Your task to perform on an android device: delete location history Image 0: 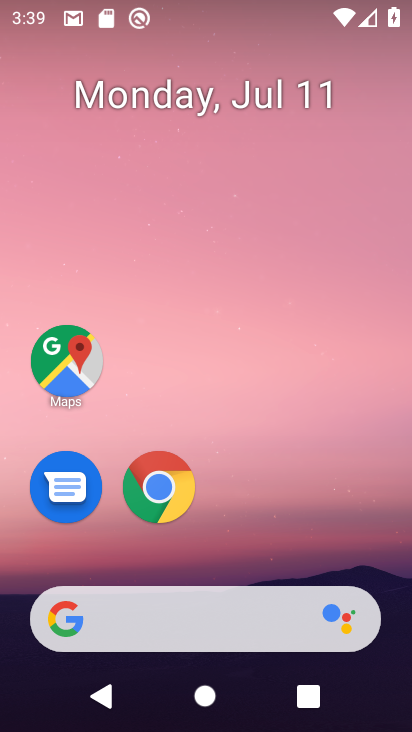
Step 0: click (58, 374)
Your task to perform on an android device: delete location history Image 1: 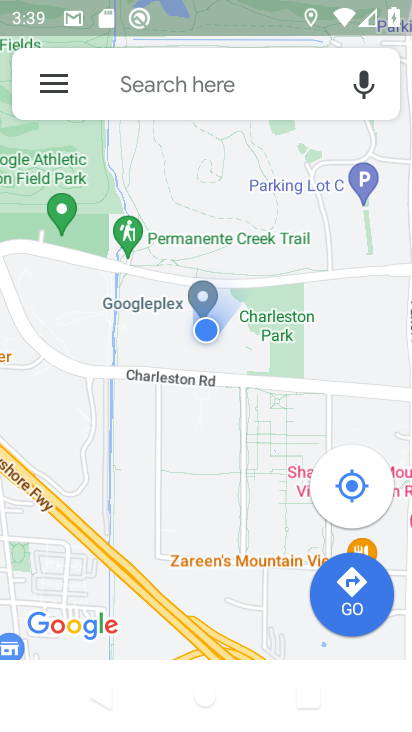
Step 1: click (49, 84)
Your task to perform on an android device: delete location history Image 2: 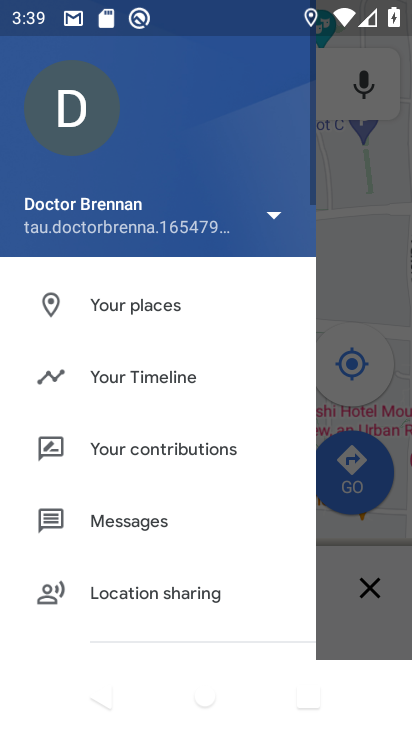
Step 2: click (154, 376)
Your task to perform on an android device: delete location history Image 3: 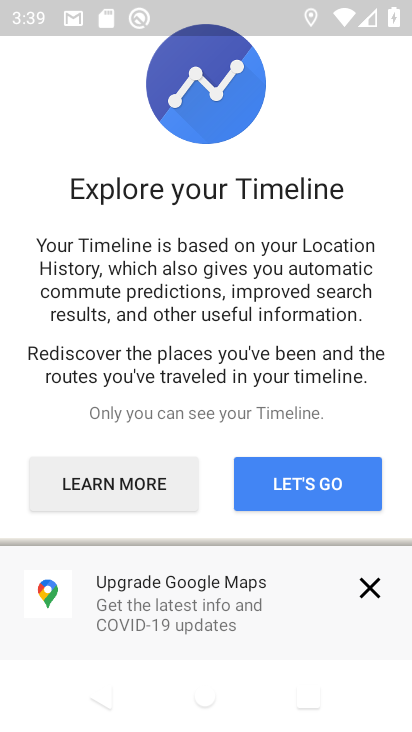
Step 3: click (367, 579)
Your task to perform on an android device: delete location history Image 4: 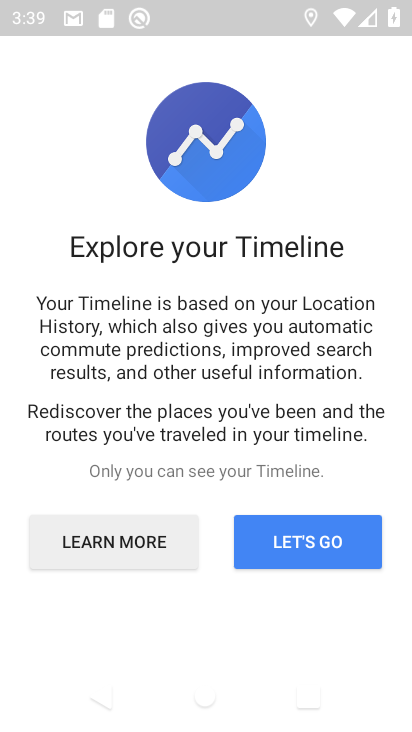
Step 4: click (290, 535)
Your task to perform on an android device: delete location history Image 5: 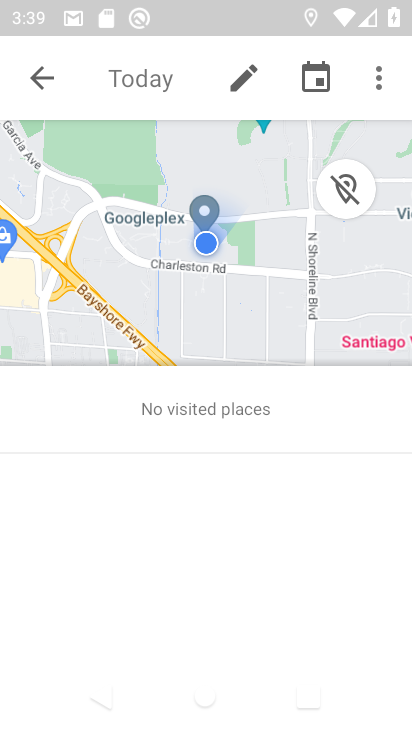
Step 5: click (383, 78)
Your task to perform on an android device: delete location history Image 6: 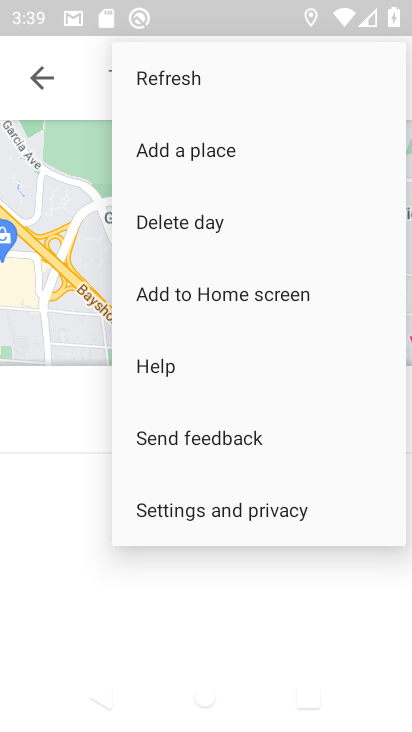
Step 6: click (207, 518)
Your task to perform on an android device: delete location history Image 7: 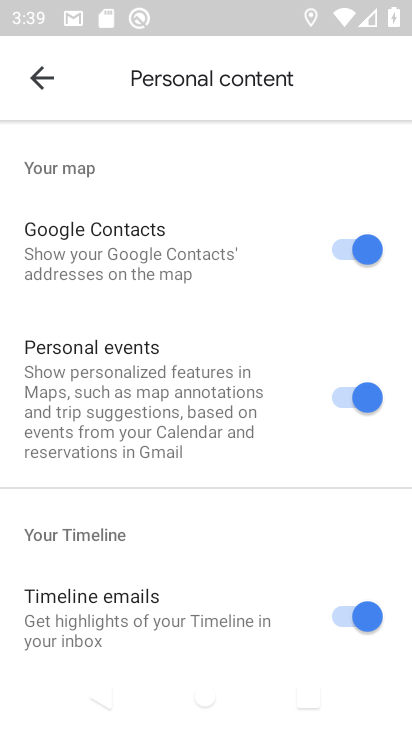
Step 7: drag from (167, 630) to (299, 86)
Your task to perform on an android device: delete location history Image 8: 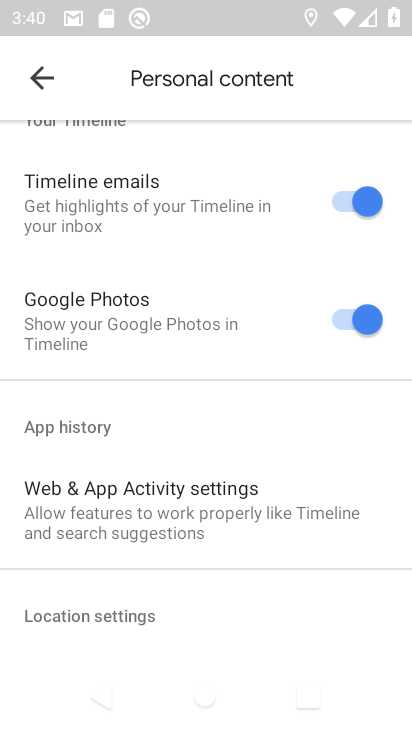
Step 8: drag from (179, 591) to (351, 73)
Your task to perform on an android device: delete location history Image 9: 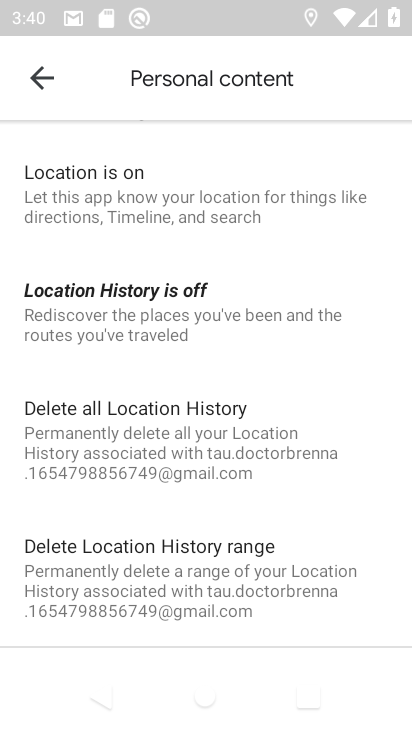
Step 9: click (161, 552)
Your task to perform on an android device: delete location history Image 10: 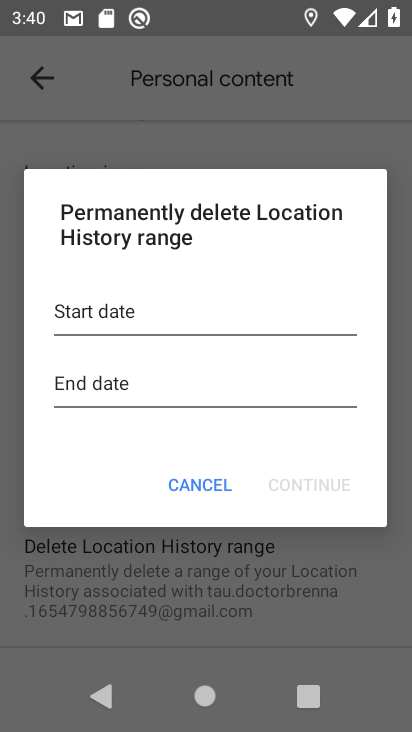
Step 10: click (175, 547)
Your task to perform on an android device: delete location history Image 11: 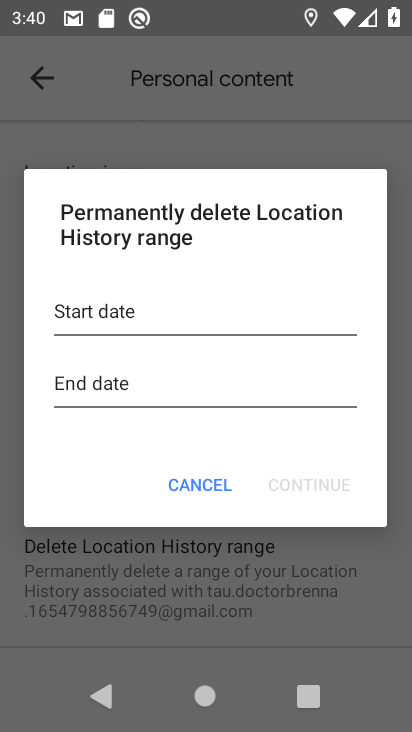
Step 11: drag from (190, 611) to (331, 135)
Your task to perform on an android device: delete location history Image 12: 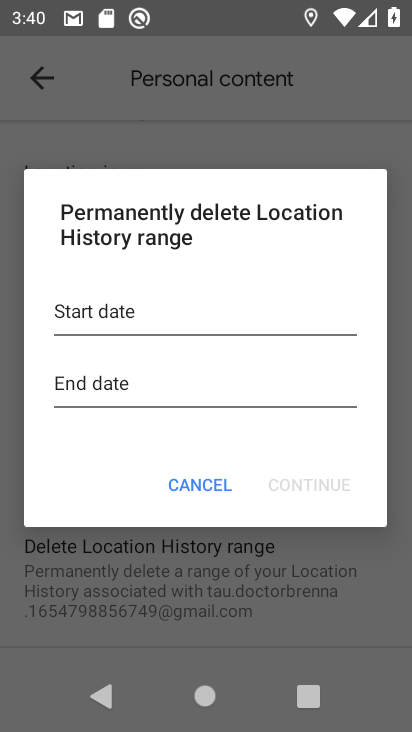
Step 12: click (162, 319)
Your task to perform on an android device: delete location history Image 13: 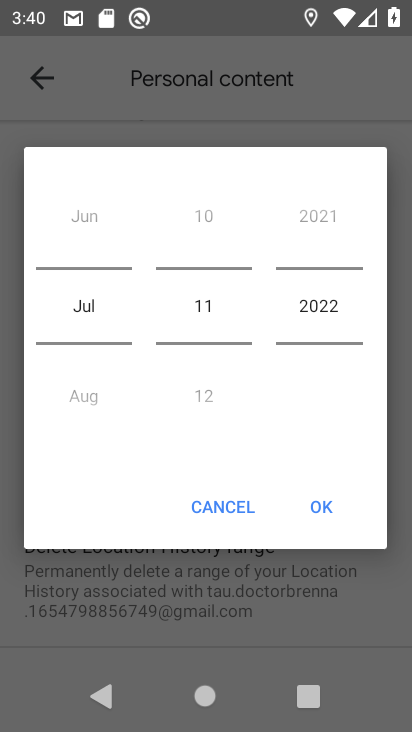
Step 13: click (327, 511)
Your task to perform on an android device: delete location history Image 14: 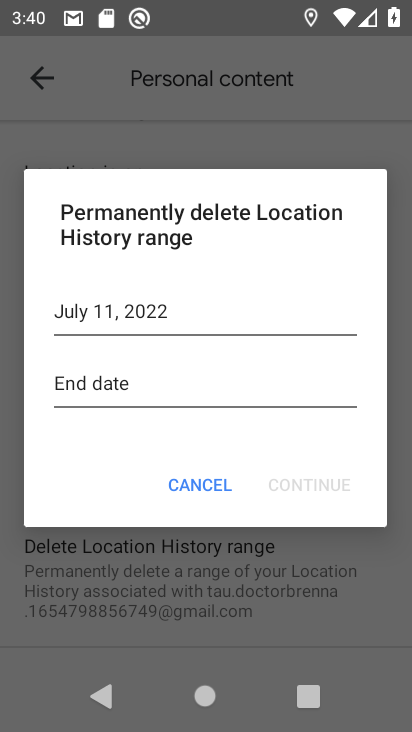
Step 14: click (157, 389)
Your task to perform on an android device: delete location history Image 15: 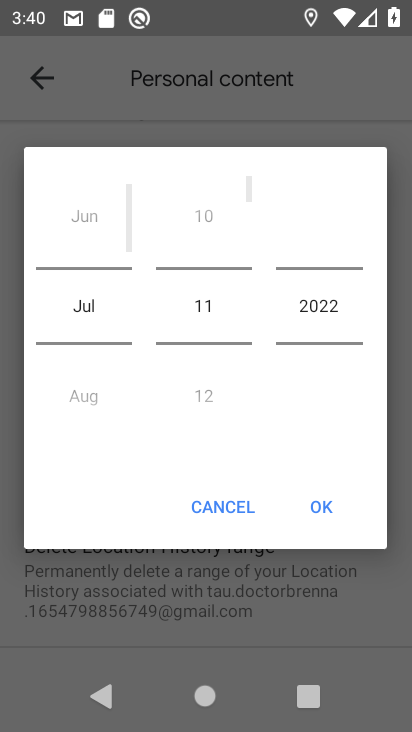
Step 15: click (318, 515)
Your task to perform on an android device: delete location history Image 16: 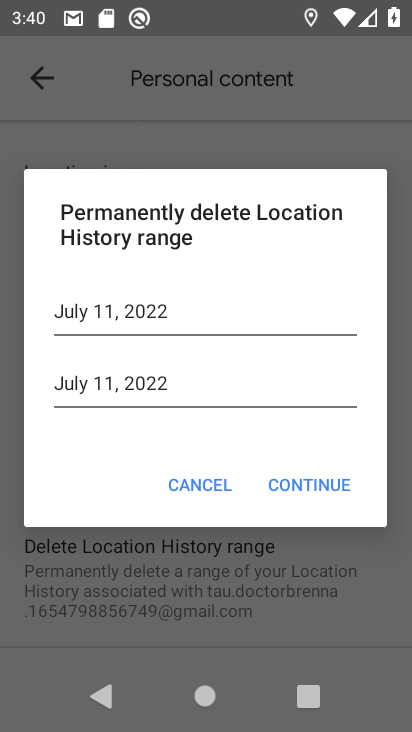
Step 16: click (309, 487)
Your task to perform on an android device: delete location history Image 17: 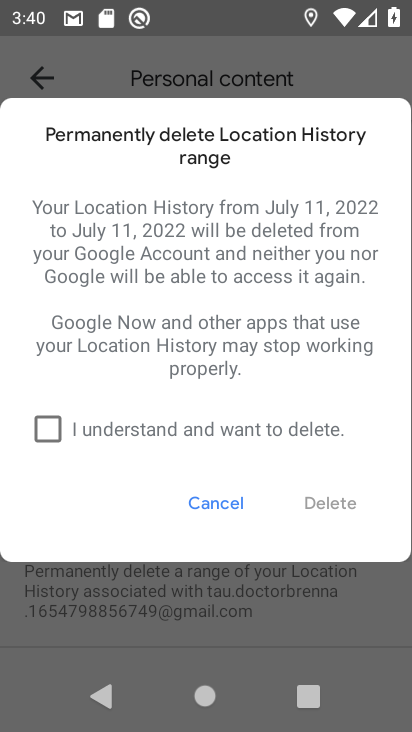
Step 17: click (50, 424)
Your task to perform on an android device: delete location history Image 18: 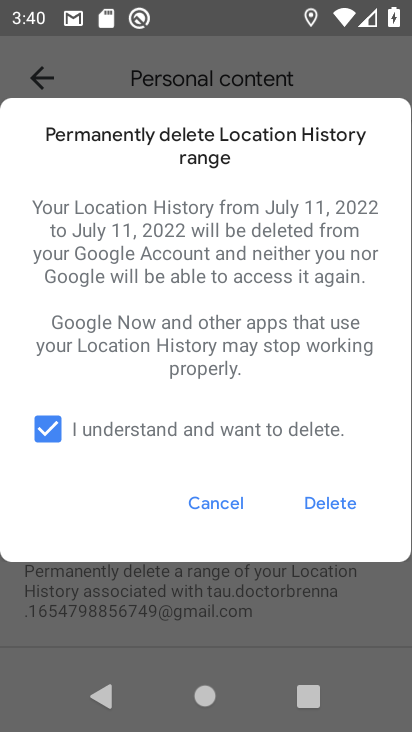
Step 18: click (341, 514)
Your task to perform on an android device: delete location history Image 19: 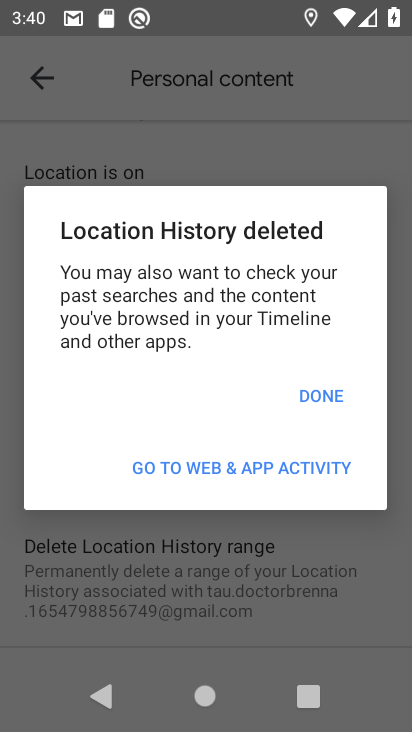
Step 19: click (337, 403)
Your task to perform on an android device: delete location history Image 20: 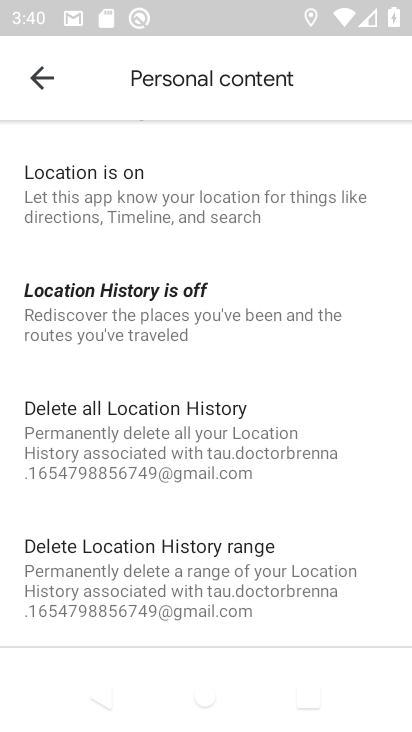
Step 20: task complete